Your task to perform on an android device: change your default location settings in chrome Image 0: 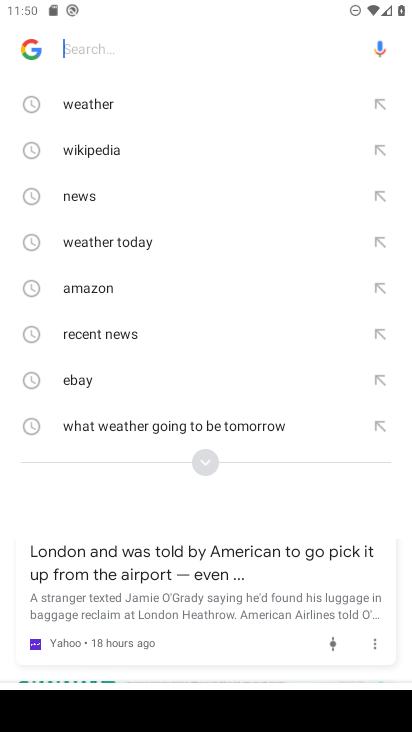
Step 0: press home button
Your task to perform on an android device: change your default location settings in chrome Image 1: 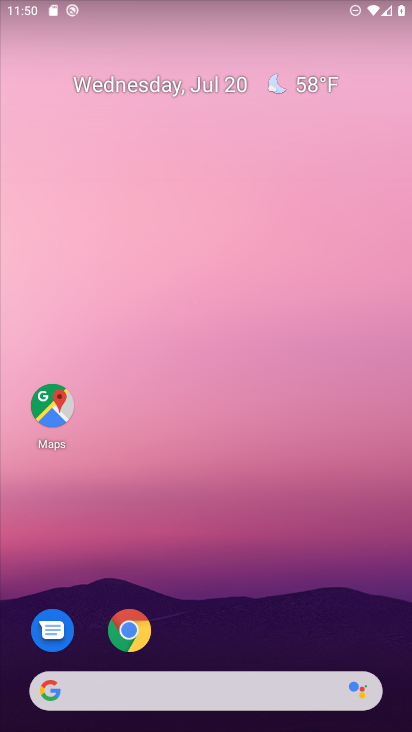
Step 1: click (129, 631)
Your task to perform on an android device: change your default location settings in chrome Image 2: 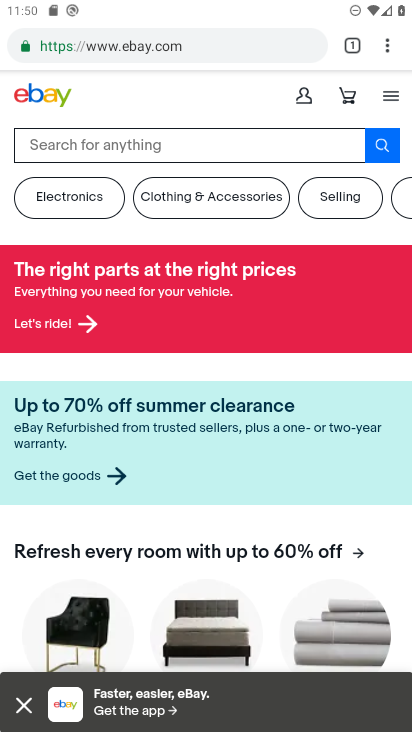
Step 2: click (384, 54)
Your task to perform on an android device: change your default location settings in chrome Image 3: 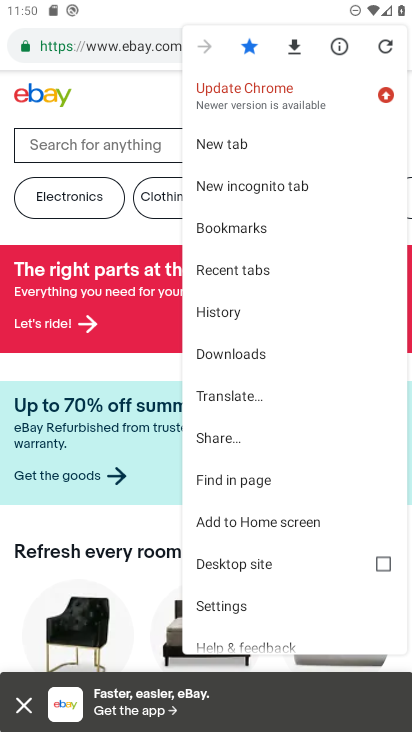
Step 3: click (226, 604)
Your task to perform on an android device: change your default location settings in chrome Image 4: 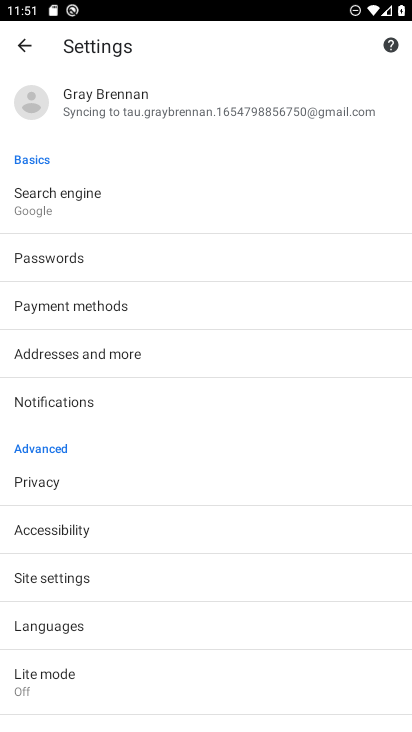
Step 4: click (80, 578)
Your task to perform on an android device: change your default location settings in chrome Image 5: 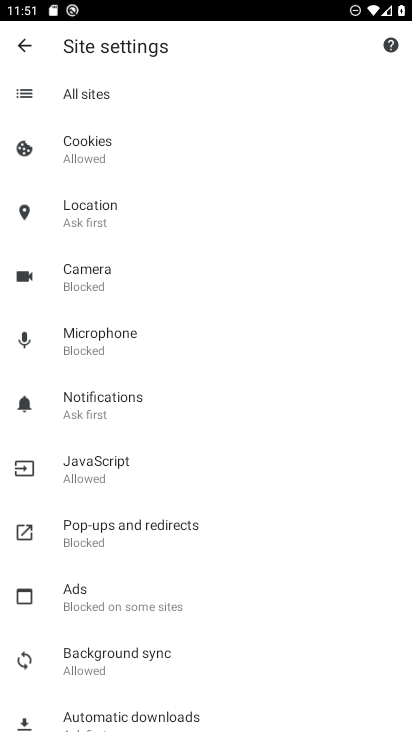
Step 5: click (112, 210)
Your task to perform on an android device: change your default location settings in chrome Image 6: 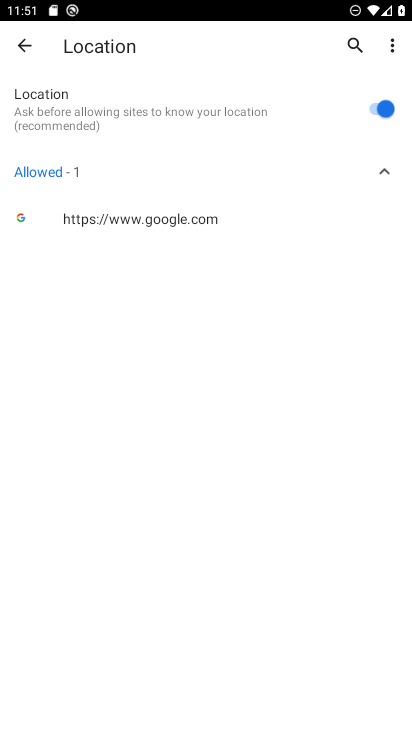
Step 6: click (358, 106)
Your task to perform on an android device: change your default location settings in chrome Image 7: 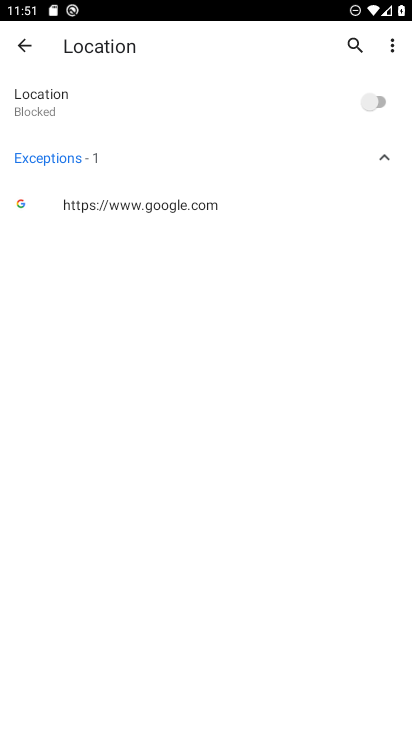
Step 7: task complete